Your task to perform on an android device: star an email in the gmail app Image 0: 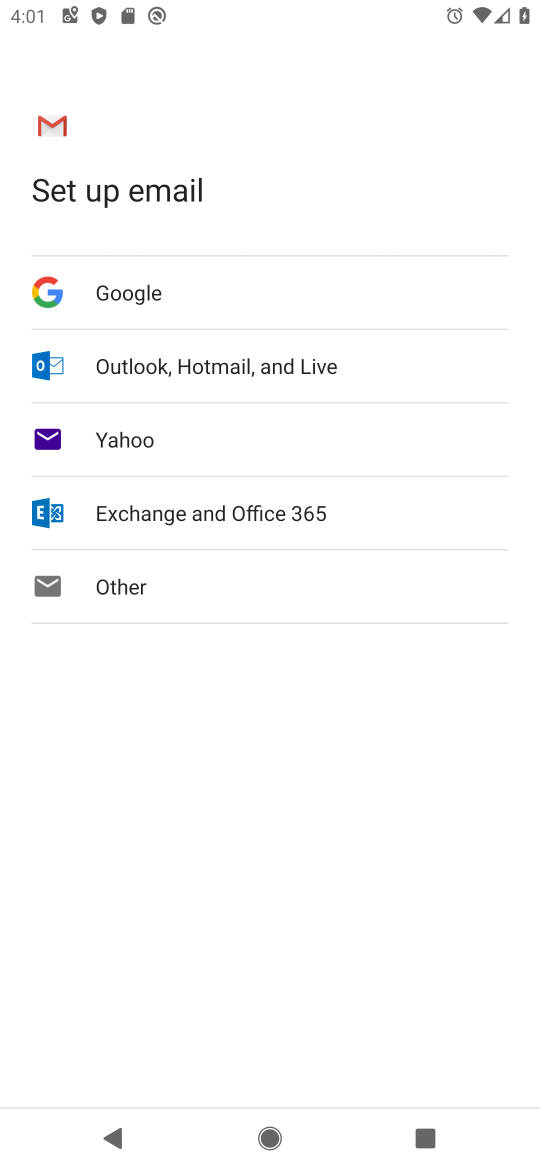
Step 0: press home button
Your task to perform on an android device: star an email in the gmail app Image 1: 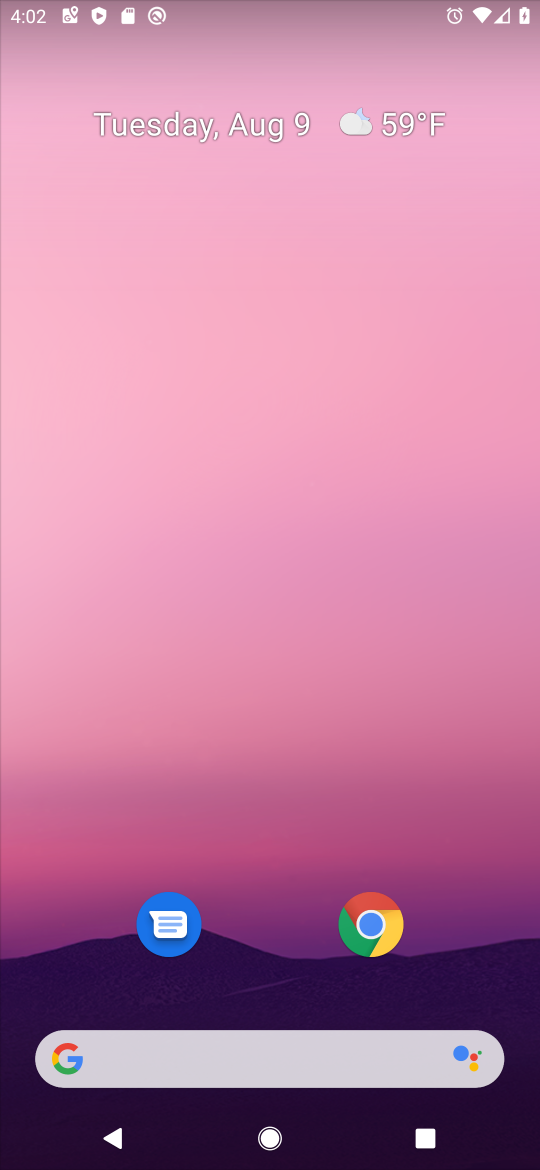
Step 1: drag from (278, 924) to (314, 54)
Your task to perform on an android device: star an email in the gmail app Image 2: 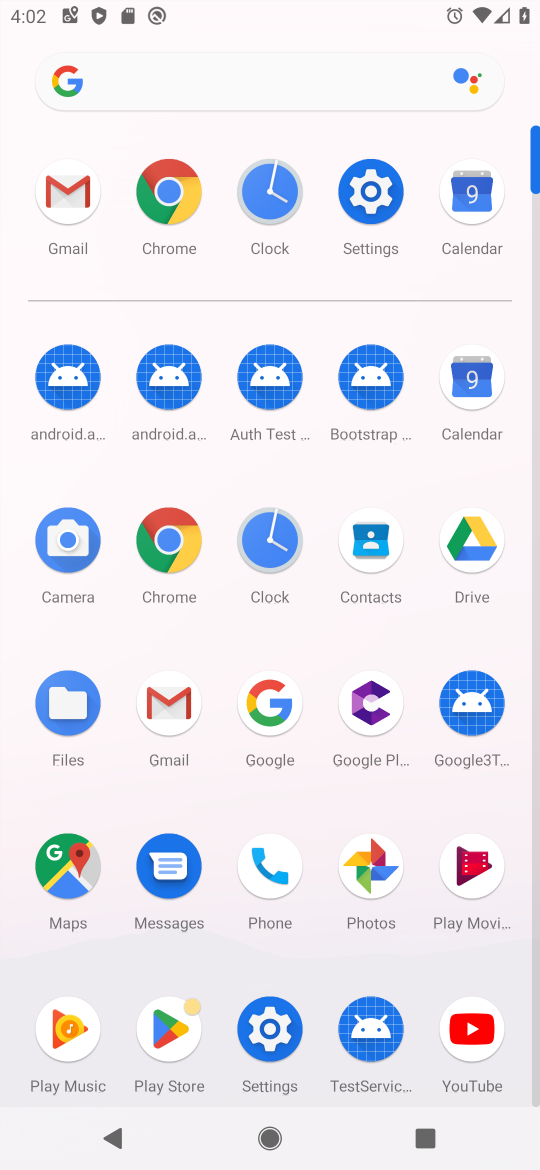
Step 2: click (69, 188)
Your task to perform on an android device: star an email in the gmail app Image 3: 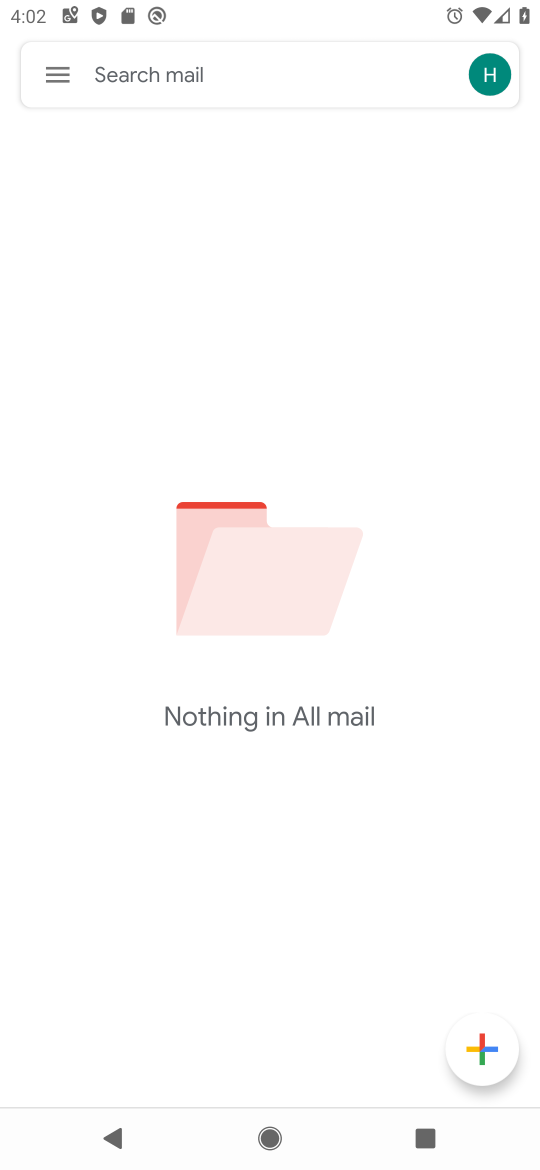
Step 3: task complete